Your task to perform on an android device: Open Google Maps Image 0: 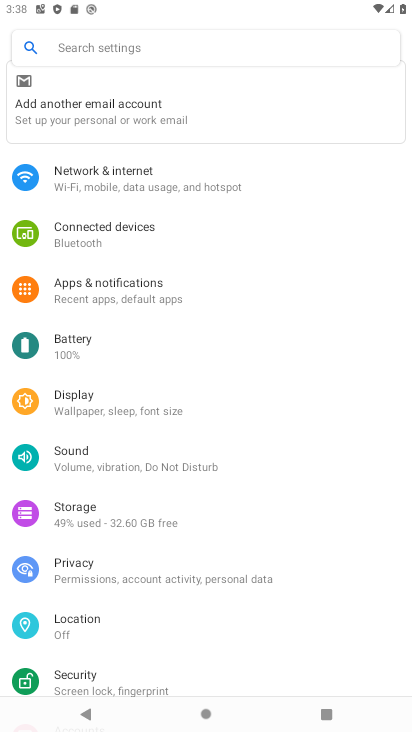
Step 0: press home button
Your task to perform on an android device: Open Google Maps Image 1: 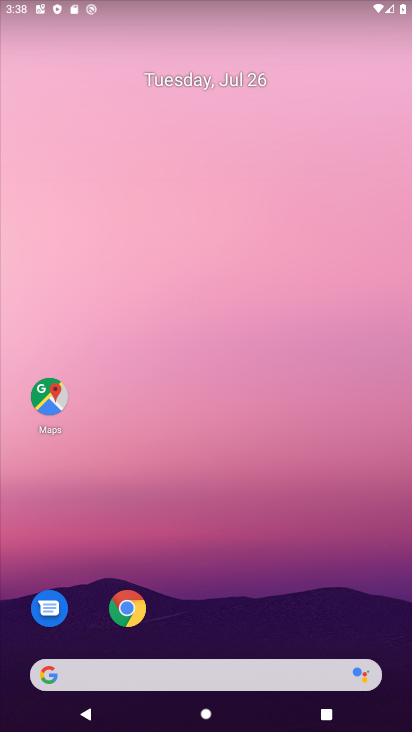
Step 1: click (54, 399)
Your task to perform on an android device: Open Google Maps Image 2: 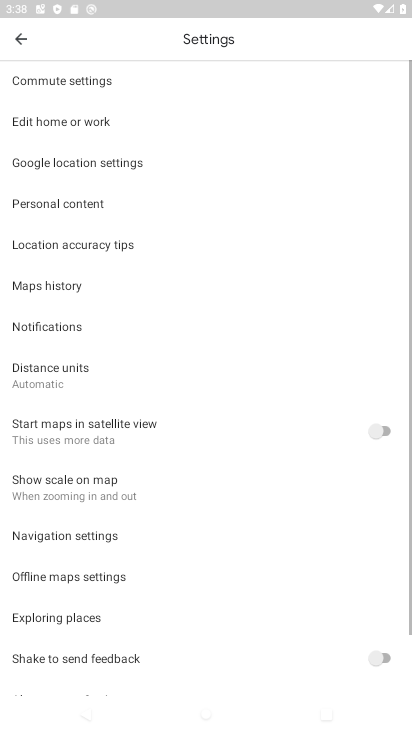
Step 2: task complete